Your task to perform on an android device: Go to battery settings Image 0: 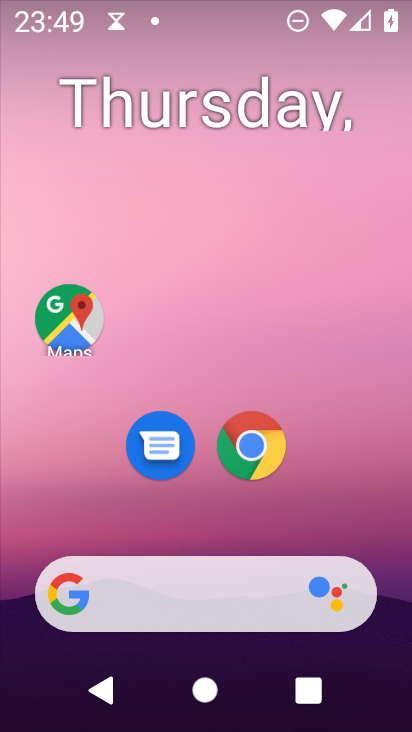
Step 0: drag from (235, 726) to (223, 219)
Your task to perform on an android device: Go to battery settings Image 1: 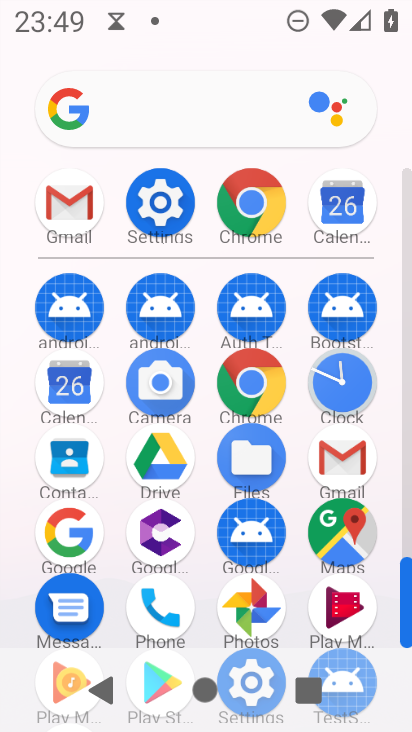
Step 1: click (158, 202)
Your task to perform on an android device: Go to battery settings Image 2: 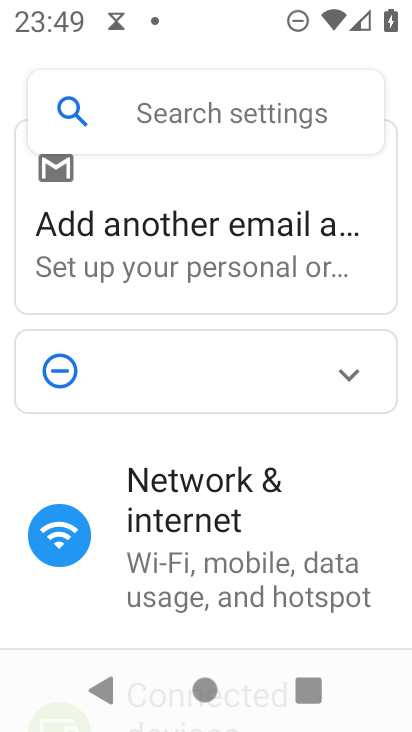
Step 2: drag from (245, 633) to (242, 119)
Your task to perform on an android device: Go to battery settings Image 3: 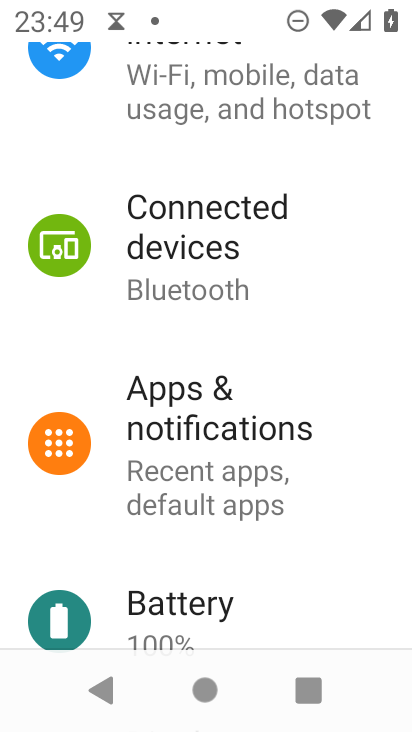
Step 3: click (184, 599)
Your task to perform on an android device: Go to battery settings Image 4: 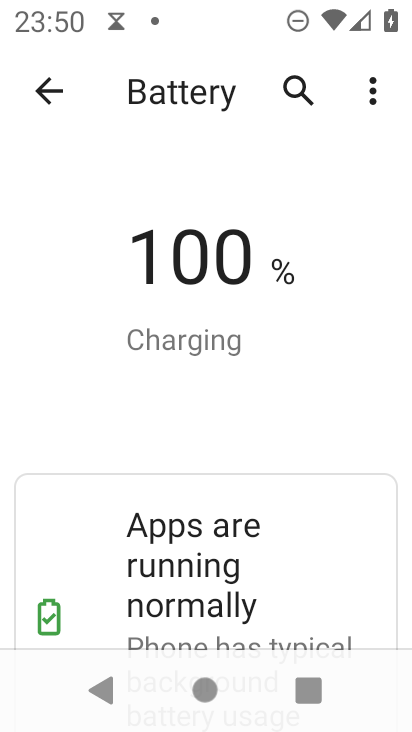
Step 4: task complete